Your task to perform on an android device: turn on priority inbox in the gmail app Image 0: 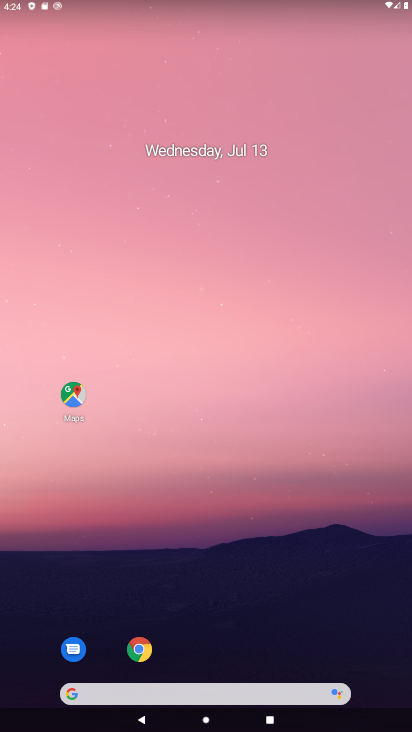
Step 0: drag from (311, 608) to (308, 16)
Your task to perform on an android device: turn on priority inbox in the gmail app Image 1: 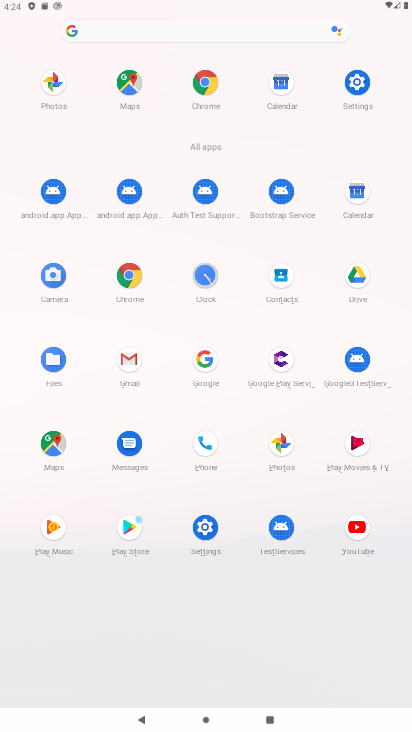
Step 1: click (127, 359)
Your task to perform on an android device: turn on priority inbox in the gmail app Image 2: 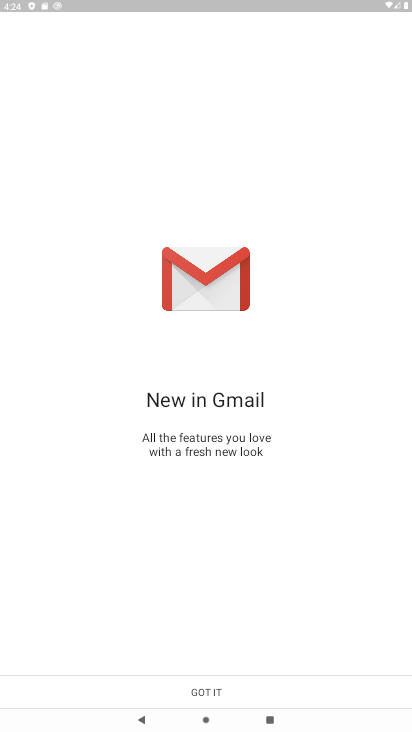
Step 2: click (200, 695)
Your task to perform on an android device: turn on priority inbox in the gmail app Image 3: 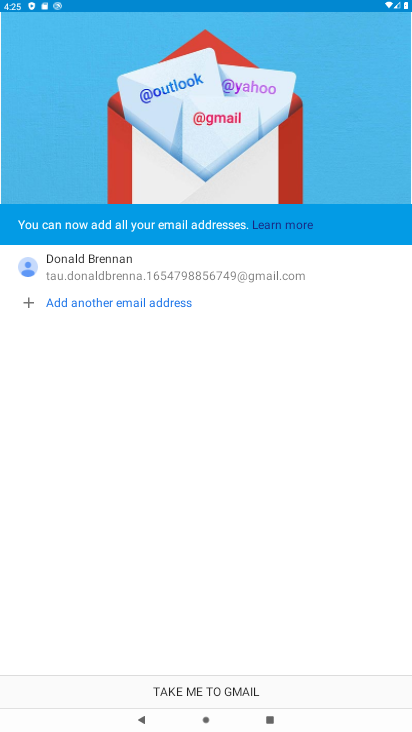
Step 3: click (171, 698)
Your task to perform on an android device: turn on priority inbox in the gmail app Image 4: 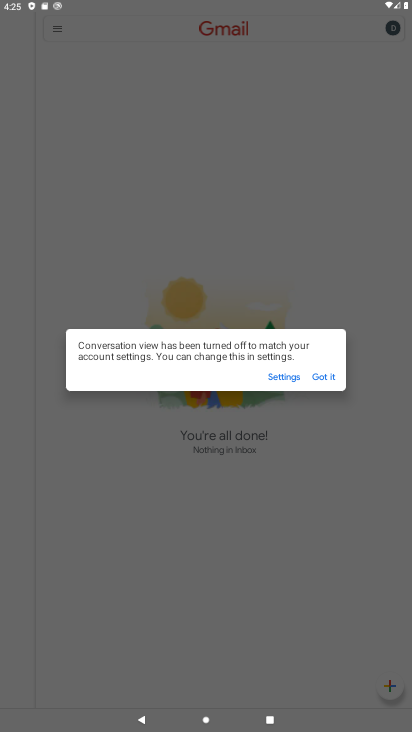
Step 4: click (312, 375)
Your task to perform on an android device: turn on priority inbox in the gmail app Image 5: 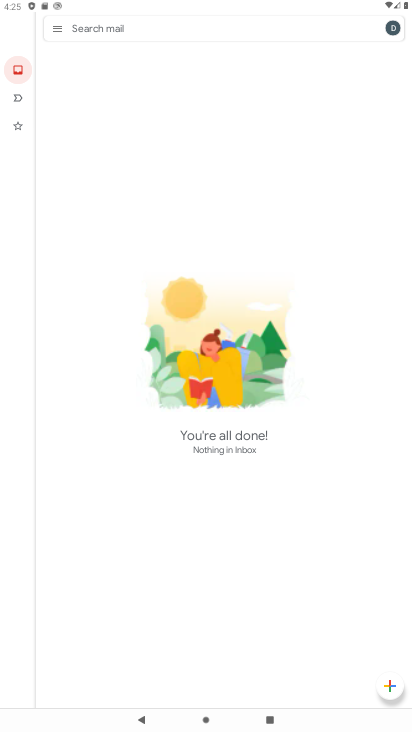
Step 5: click (59, 33)
Your task to perform on an android device: turn on priority inbox in the gmail app Image 6: 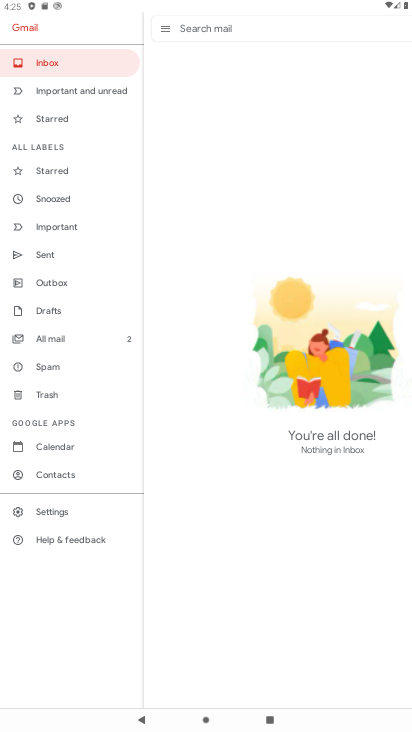
Step 6: click (60, 512)
Your task to perform on an android device: turn on priority inbox in the gmail app Image 7: 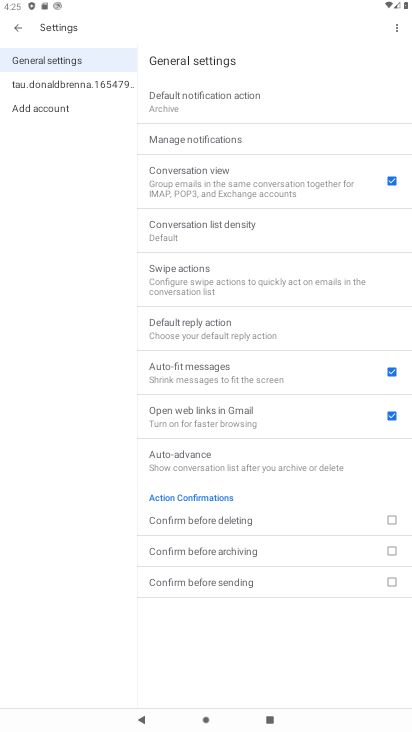
Step 7: click (63, 70)
Your task to perform on an android device: turn on priority inbox in the gmail app Image 8: 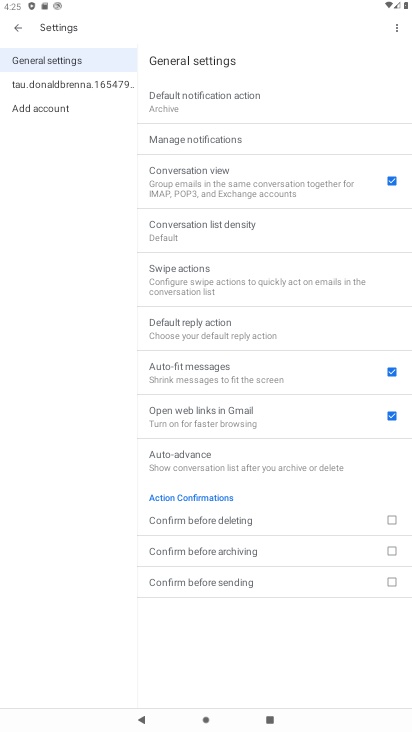
Step 8: click (57, 89)
Your task to perform on an android device: turn on priority inbox in the gmail app Image 9: 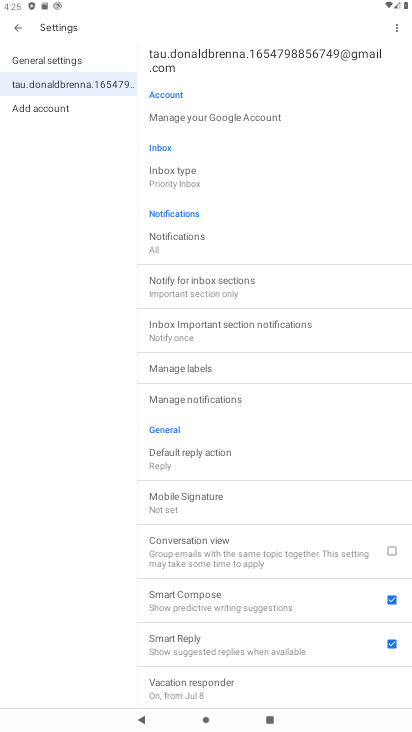
Step 9: click (177, 180)
Your task to perform on an android device: turn on priority inbox in the gmail app Image 10: 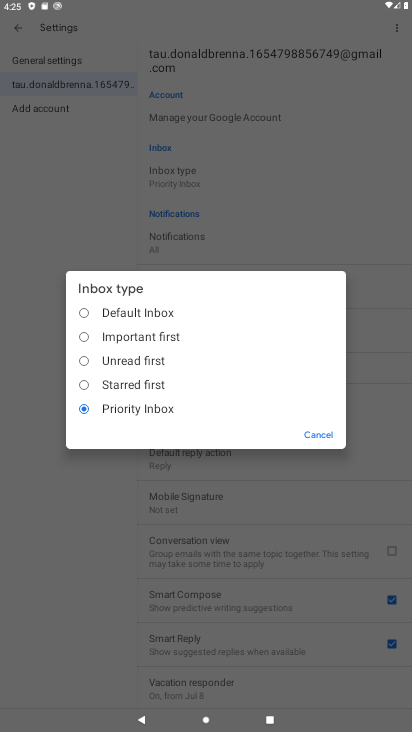
Step 10: task complete